Your task to perform on an android device: What is the recent news? Image 0: 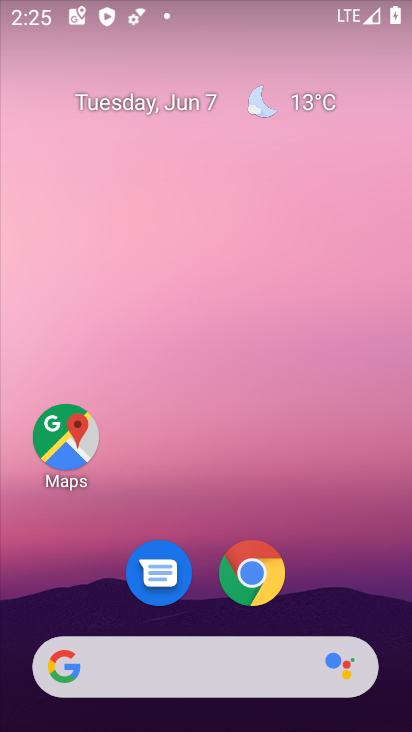
Step 0: click (232, 678)
Your task to perform on an android device: What is the recent news? Image 1: 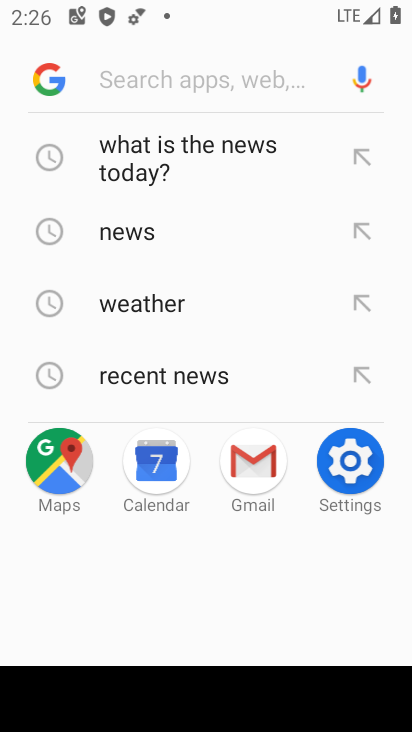
Step 1: type "what is the recent news"
Your task to perform on an android device: What is the recent news? Image 2: 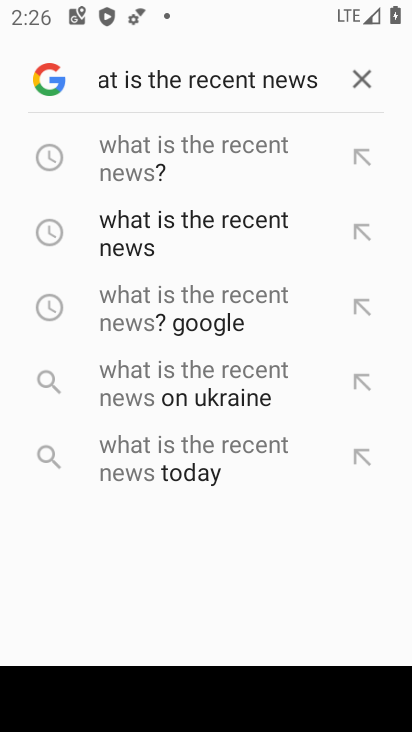
Step 2: click (157, 168)
Your task to perform on an android device: What is the recent news? Image 3: 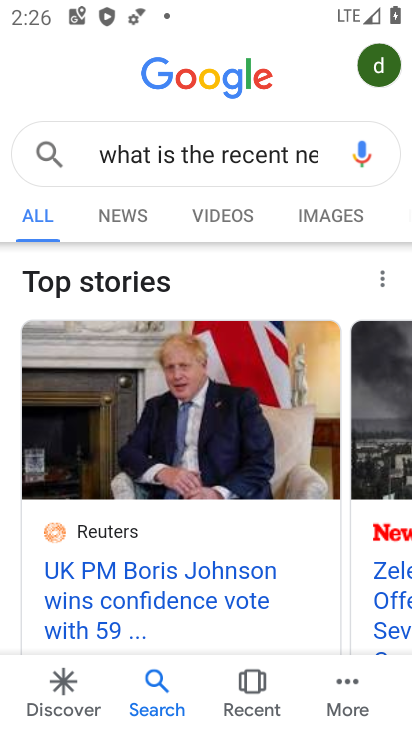
Step 3: click (128, 218)
Your task to perform on an android device: What is the recent news? Image 4: 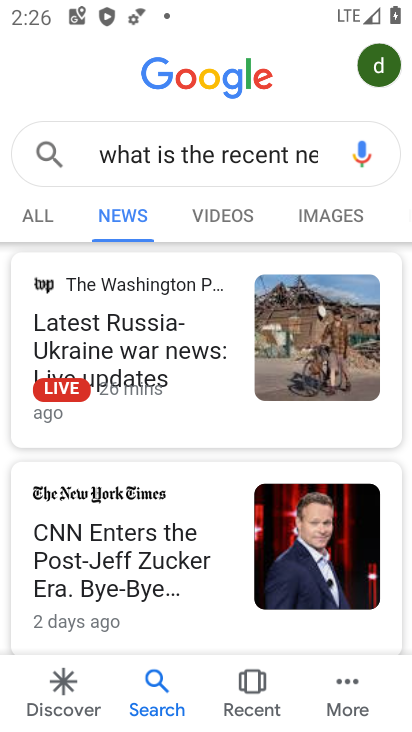
Step 4: task complete